Your task to perform on an android device: show emergency info Image 0: 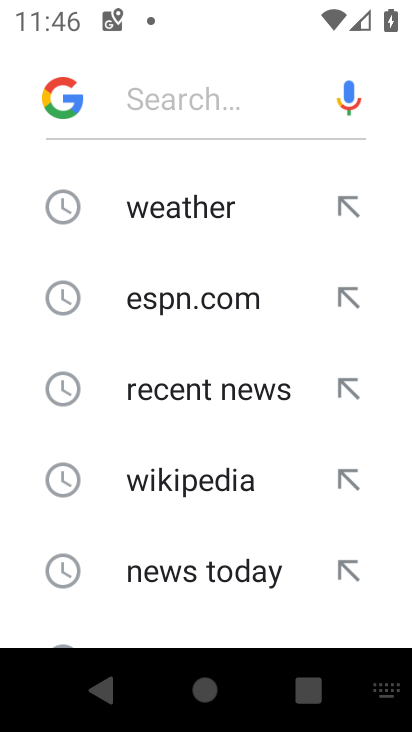
Step 0: press home button
Your task to perform on an android device: show emergency info Image 1: 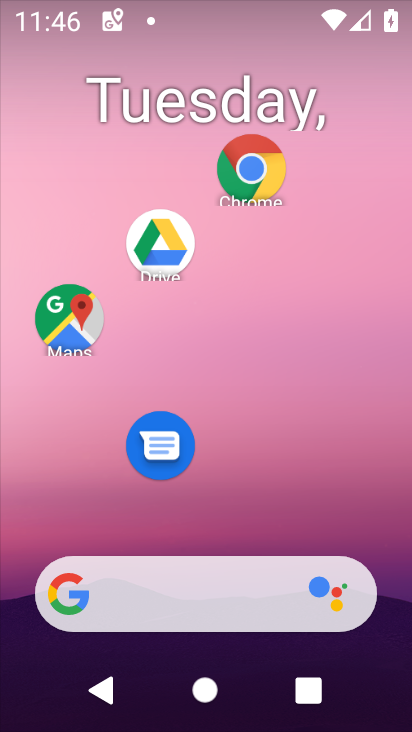
Step 1: drag from (245, 442) to (279, 44)
Your task to perform on an android device: show emergency info Image 2: 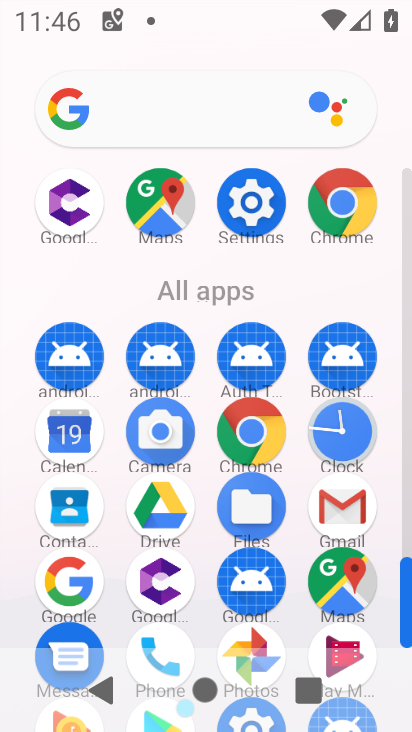
Step 2: click (257, 183)
Your task to perform on an android device: show emergency info Image 3: 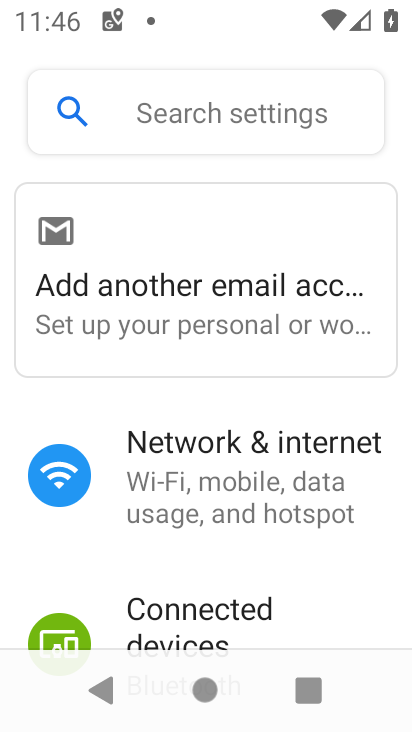
Step 3: drag from (208, 563) to (208, 140)
Your task to perform on an android device: show emergency info Image 4: 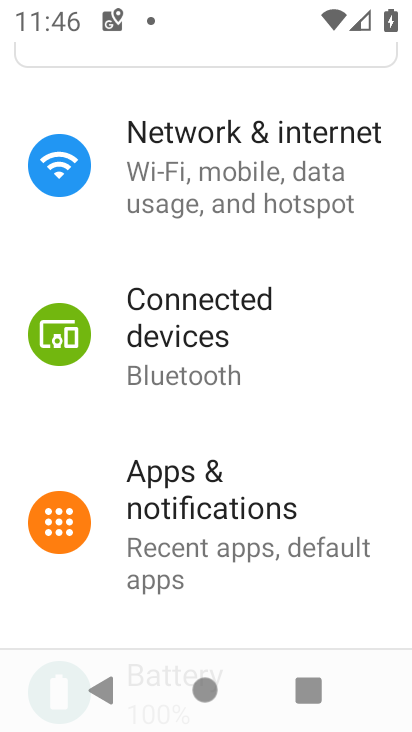
Step 4: drag from (206, 604) to (241, 139)
Your task to perform on an android device: show emergency info Image 5: 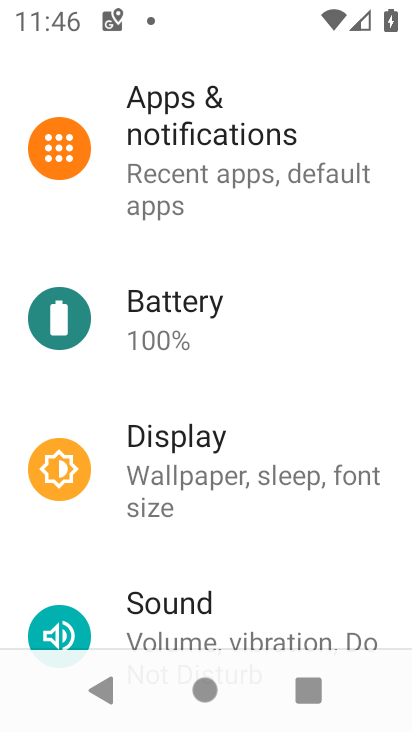
Step 5: drag from (242, 537) to (280, 225)
Your task to perform on an android device: show emergency info Image 6: 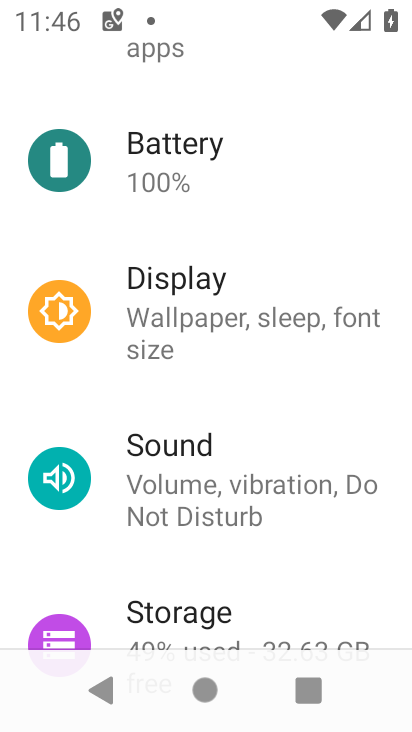
Step 6: drag from (252, 579) to (301, 235)
Your task to perform on an android device: show emergency info Image 7: 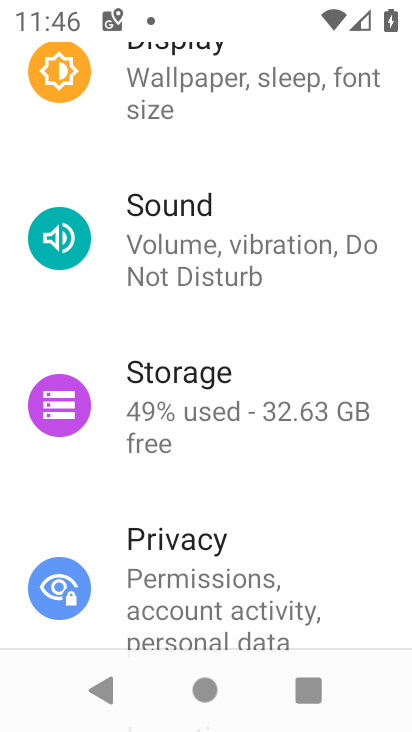
Step 7: drag from (275, 528) to (286, 188)
Your task to perform on an android device: show emergency info Image 8: 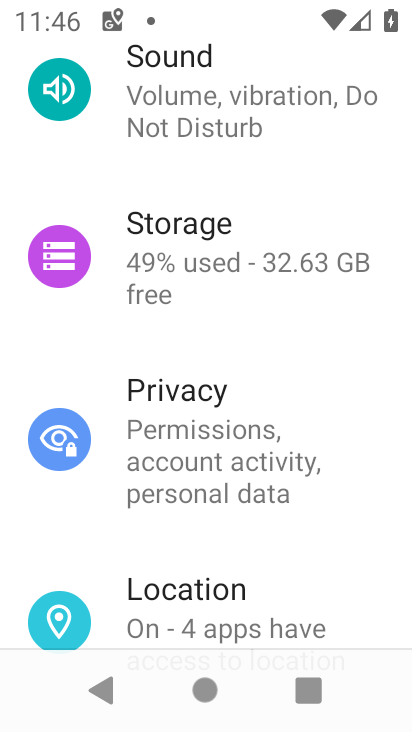
Step 8: drag from (235, 562) to (270, 188)
Your task to perform on an android device: show emergency info Image 9: 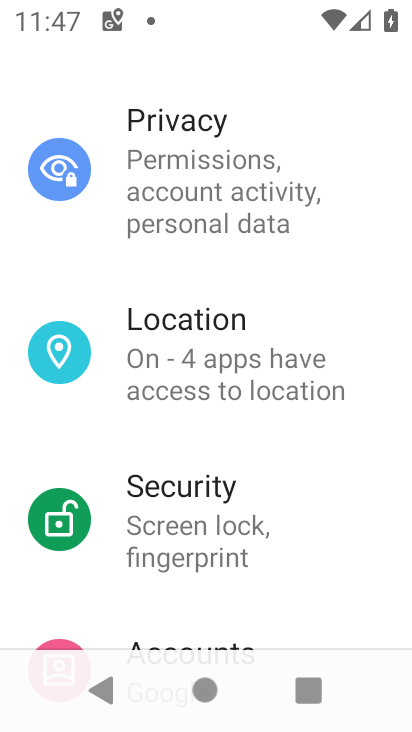
Step 9: drag from (255, 583) to (260, 183)
Your task to perform on an android device: show emergency info Image 10: 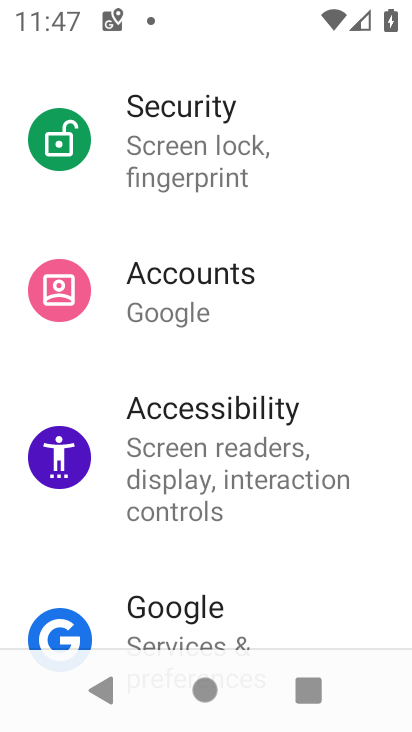
Step 10: drag from (248, 552) to (301, 170)
Your task to perform on an android device: show emergency info Image 11: 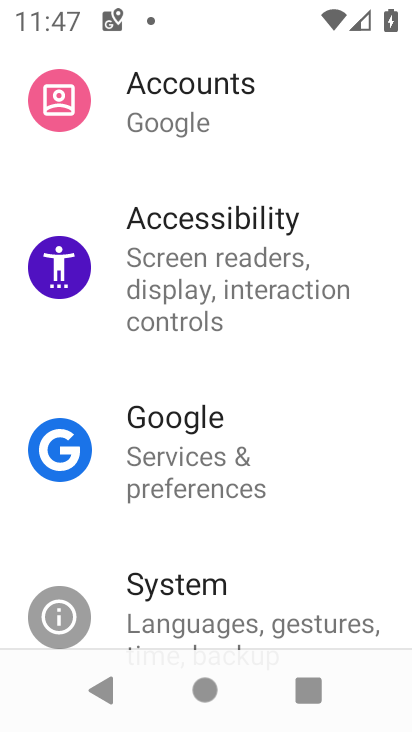
Step 11: drag from (264, 560) to (303, 232)
Your task to perform on an android device: show emergency info Image 12: 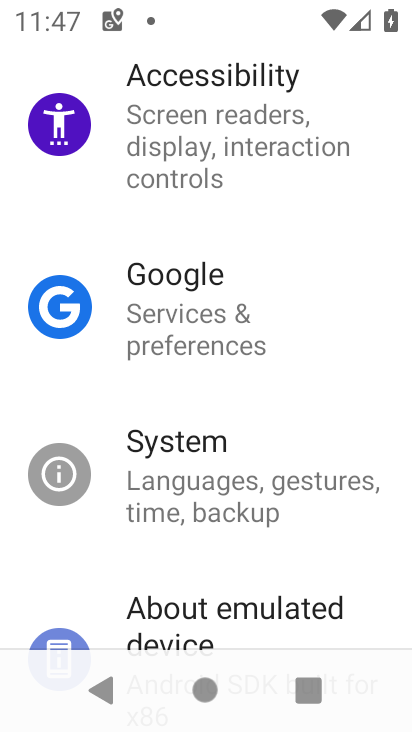
Step 12: click (222, 621)
Your task to perform on an android device: show emergency info Image 13: 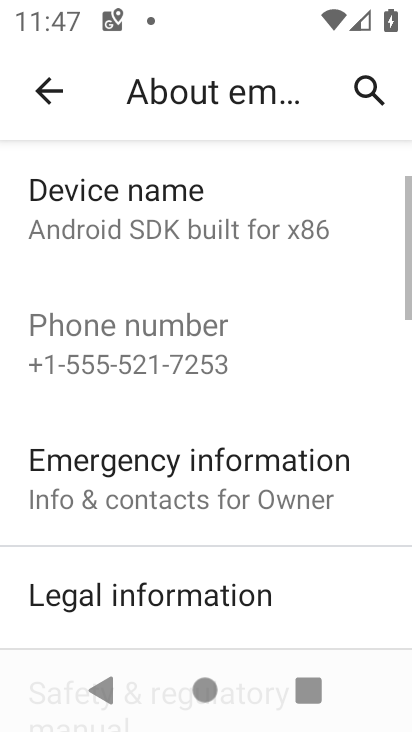
Step 13: click (238, 486)
Your task to perform on an android device: show emergency info Image 14: 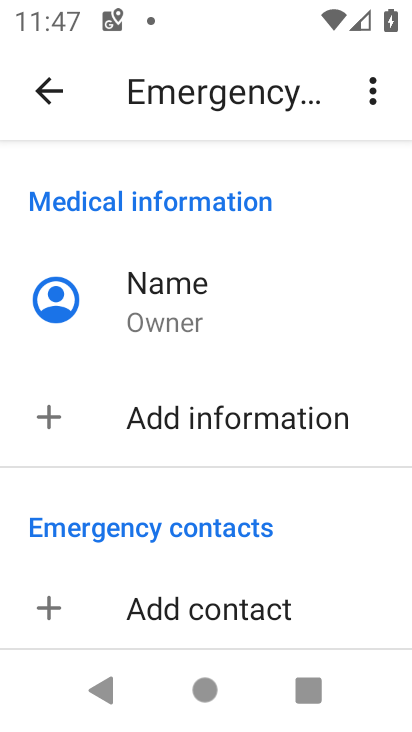
Step 14: task complete